Your task to perform on an android device: all mails in gmail Image 0: 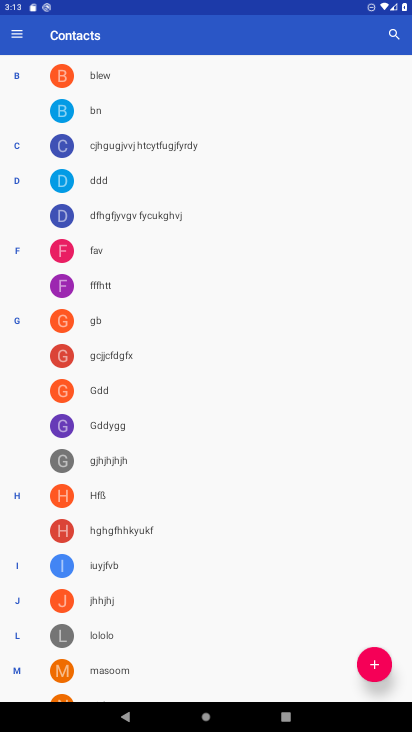
Step 0: press home button
Your task to perform on an android device: all mails in gmail Image 1: 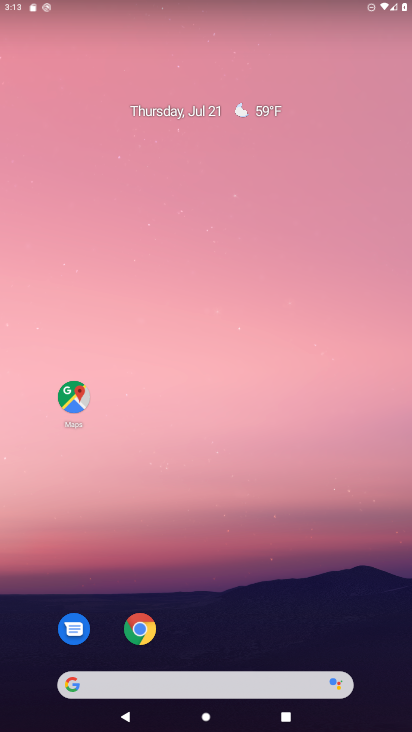
Step 1: drag from (233, 726) to (208, 123)
Your task to perform on an android device: all mails in gmail Image 2: 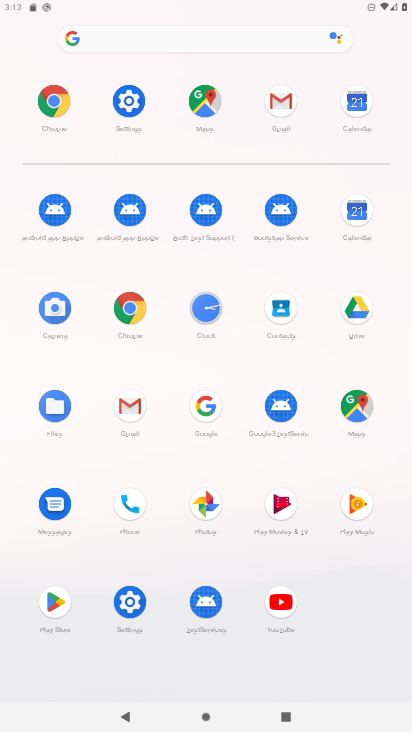
Step 2: click (130, 407)
Your task to perform on an android device: all mails in gmail Image 3: 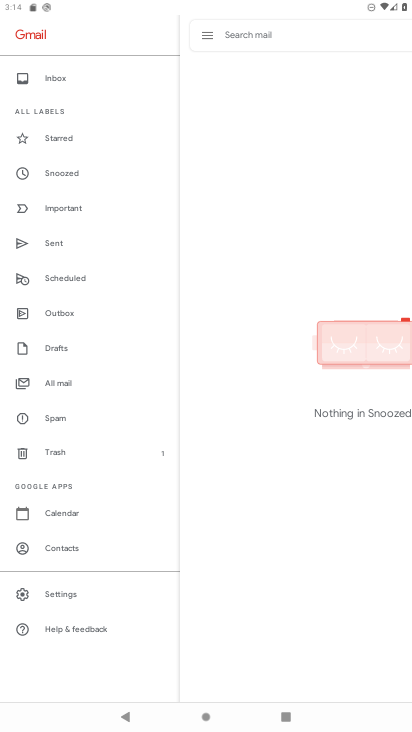
Step 3: click (53, 382)
Your task to perform on an android device: all mails in gmail Image 4: 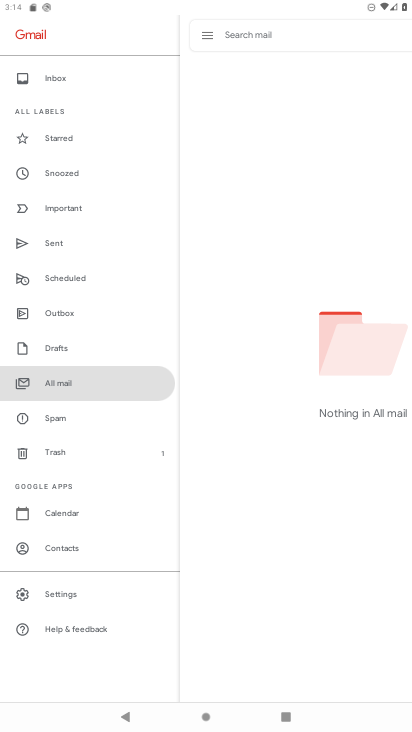
Step 4: task complete